Your task to perform on an android device: check battery use Image 0: 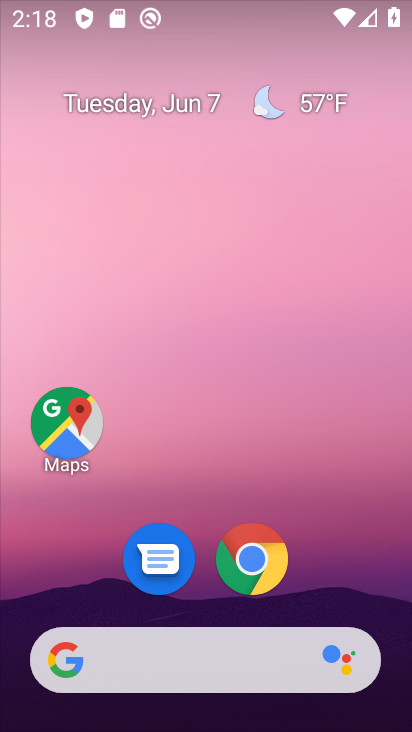
Step 0: drag from (330, 580) to (228, 17)
Your task to perform on an android device: check battery use Image 1: 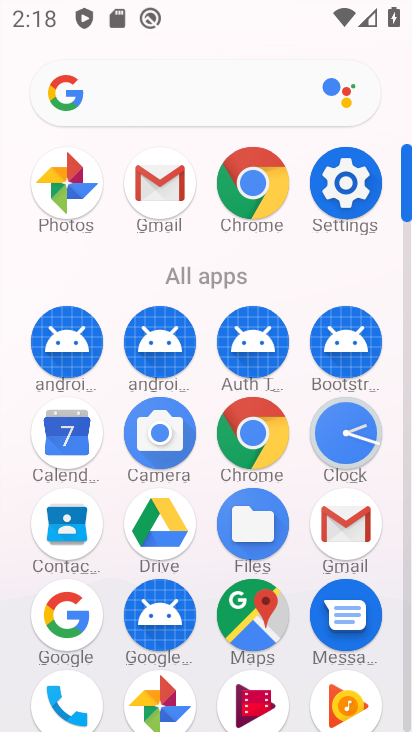
Step 1: drag from (1, 632) to (1, 245)
Your task to perform on an android device: check battery use Image 2: 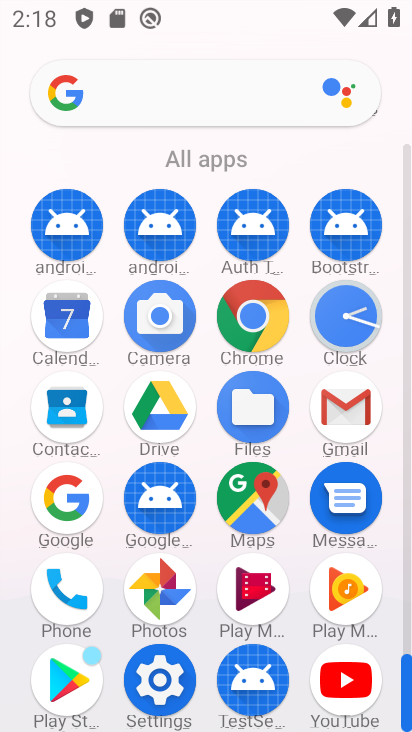
Step 2: click (157, 677)
Your task to perform on an android device: check battery use Image 3: 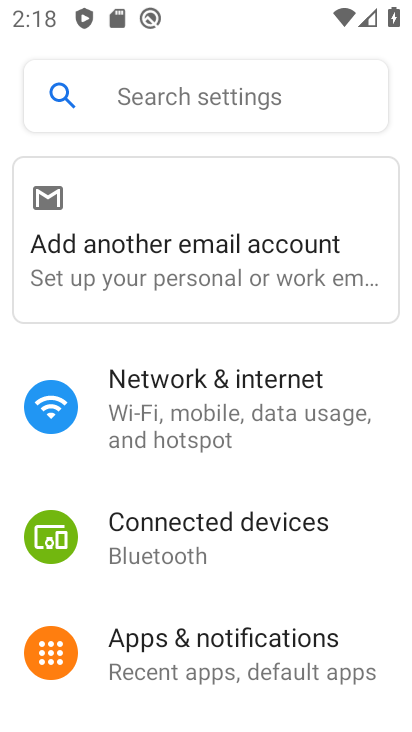
Step 3: drag from (327, 600) to (362, 139)
Your task to perform on an android device: check battery use Image 4: 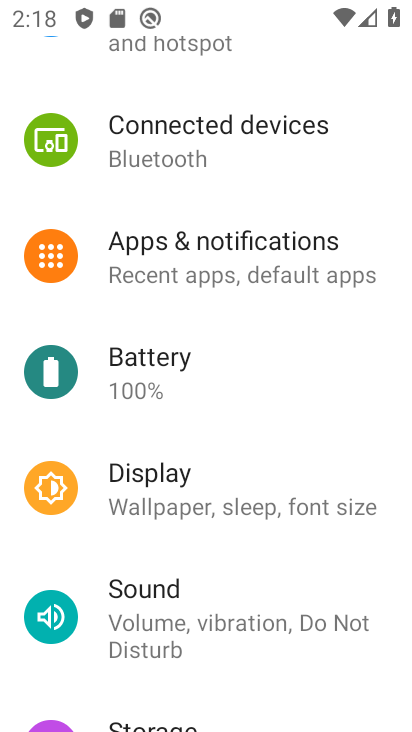
Step 4: click (163, 347)
Your task to perform on an android device: check battery use Image 5: 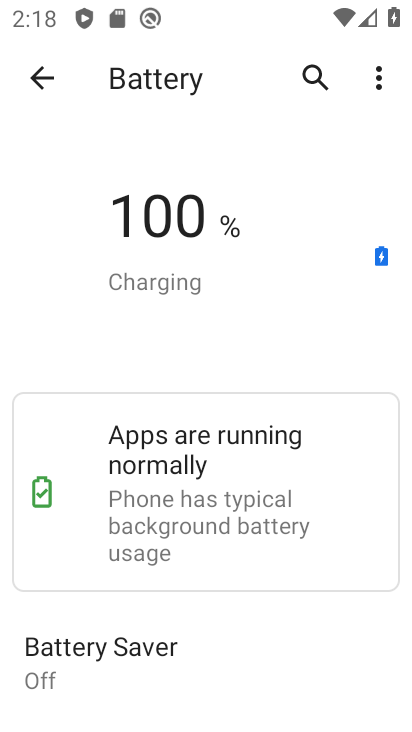
Step 5: task complete